Your task to perform on an android device: turn on airplane mode Image 0: 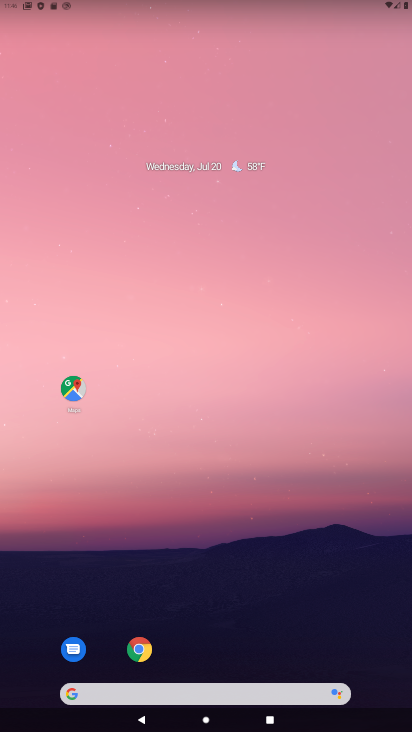
Step 0: drag from (209, 662) to (239, 101)
Your task to perform on an android device: turn on airplane mode Image 1: 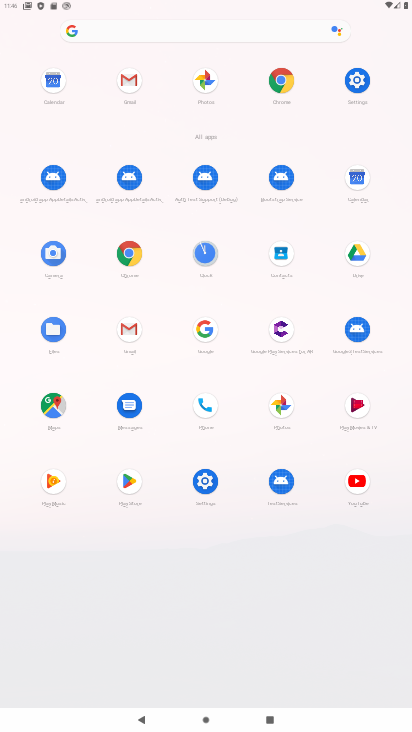
Step 1: click (360, 82)
Your task to perform on an android device: turn on airplane mode Image 2: 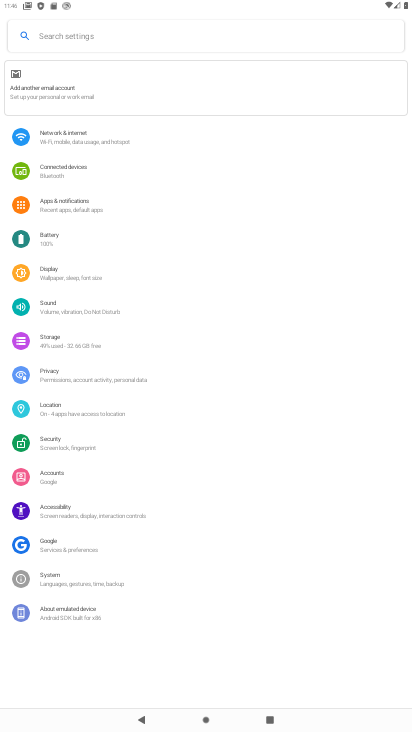
Step 2: click (99, 135)
Your task to perform on an android device: turn on airplane mode Image 3: 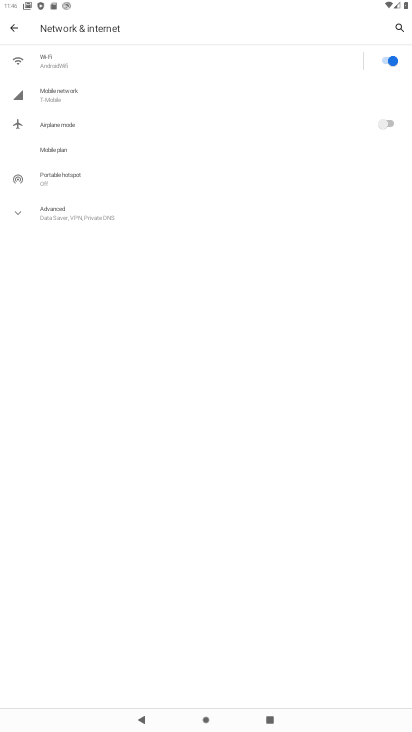
Step 3: click (387, 125)
Your task to perform on an android device: turn on airplane mode Image 4: 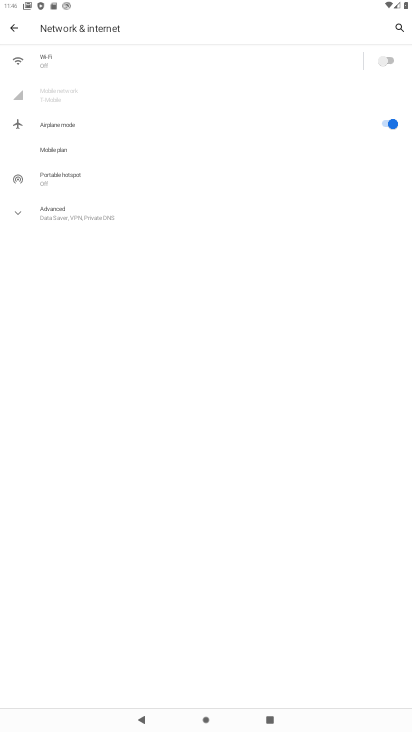
Step 4: task complete